Your task to perform on an android device: open app "Facebook Messenger" (install if not already installed) Image 0: 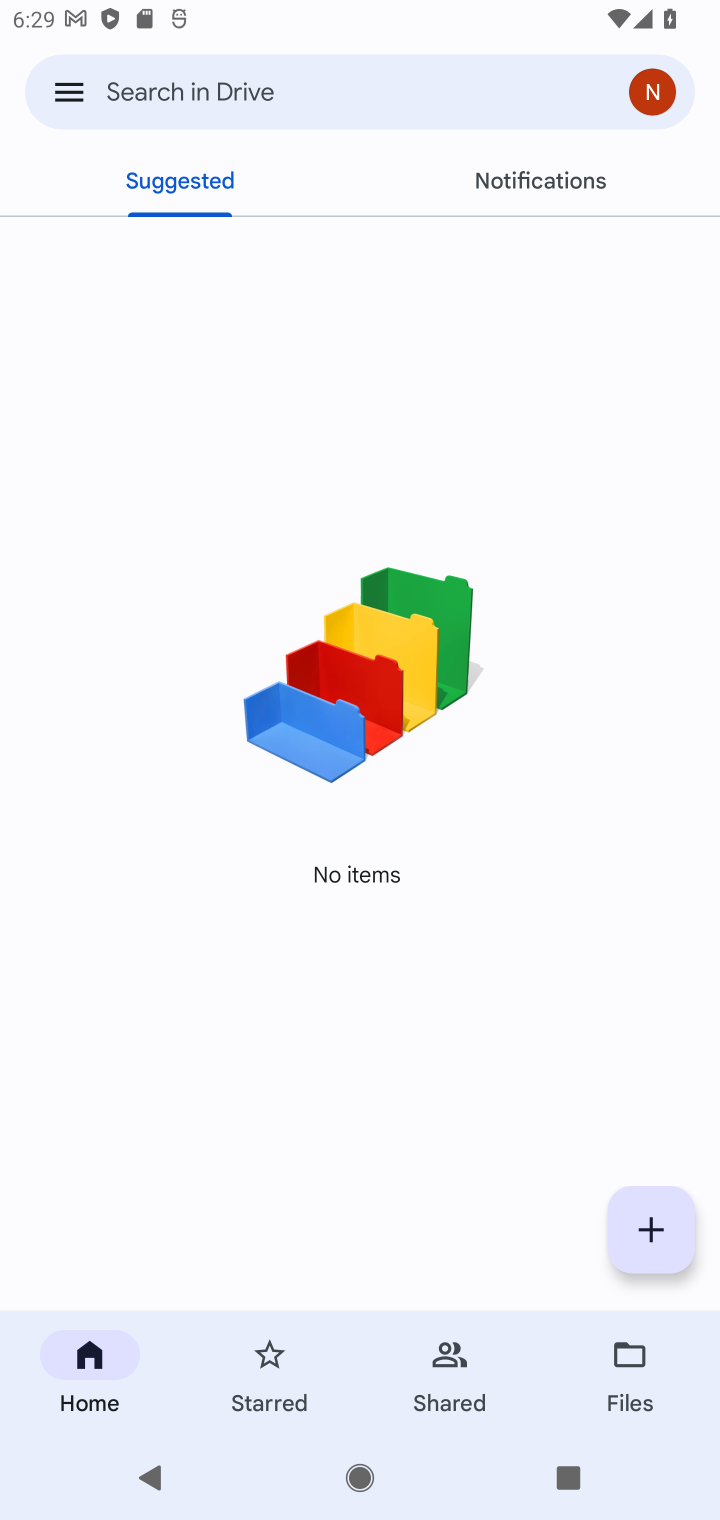
Step 0: press home button
Your task to perform on an android device: open app "Facebook Messenger" (install if not already installed) Image 1: 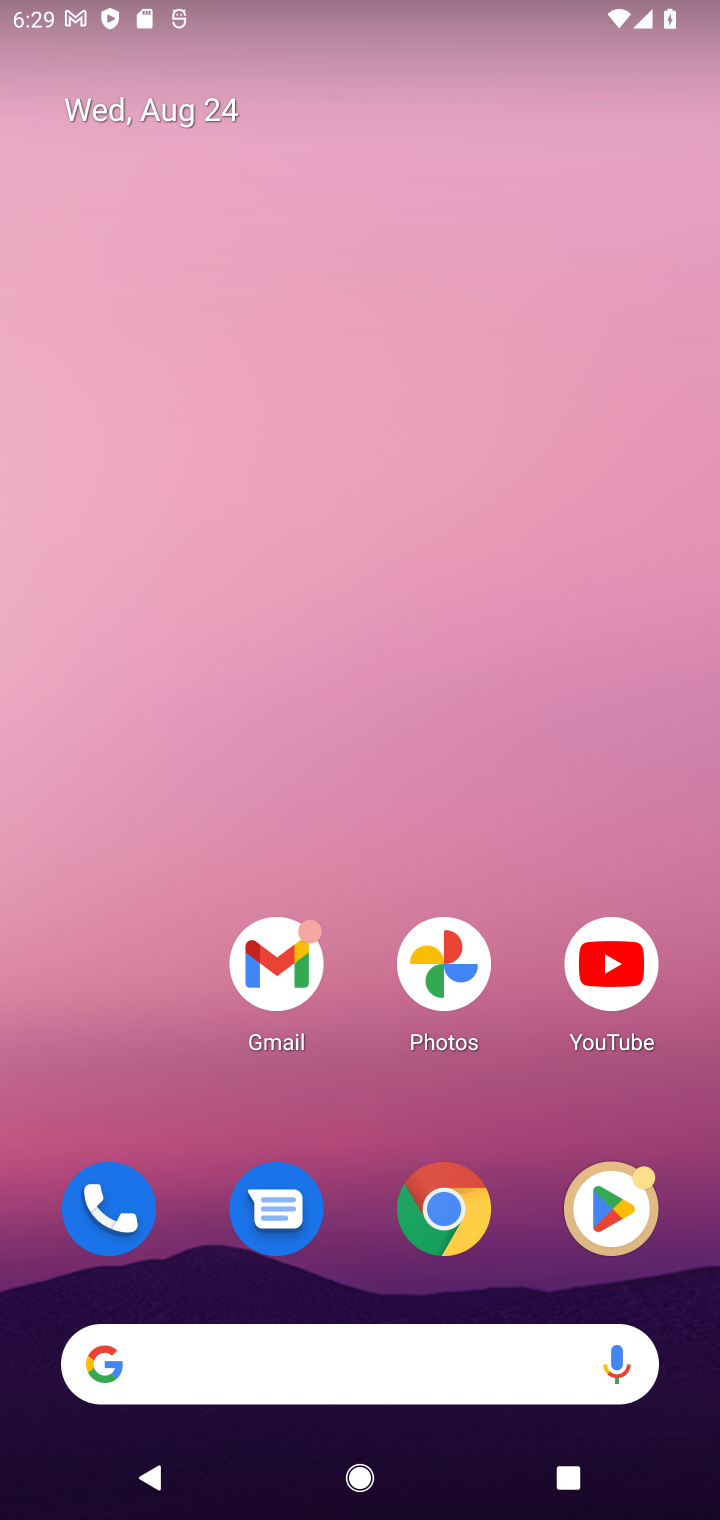
Step 1: drag from (255, 1254) to (608, 100)
Your task to perform on an android device: open app "Facebook Messenger" (install if not already installed) Image 2: 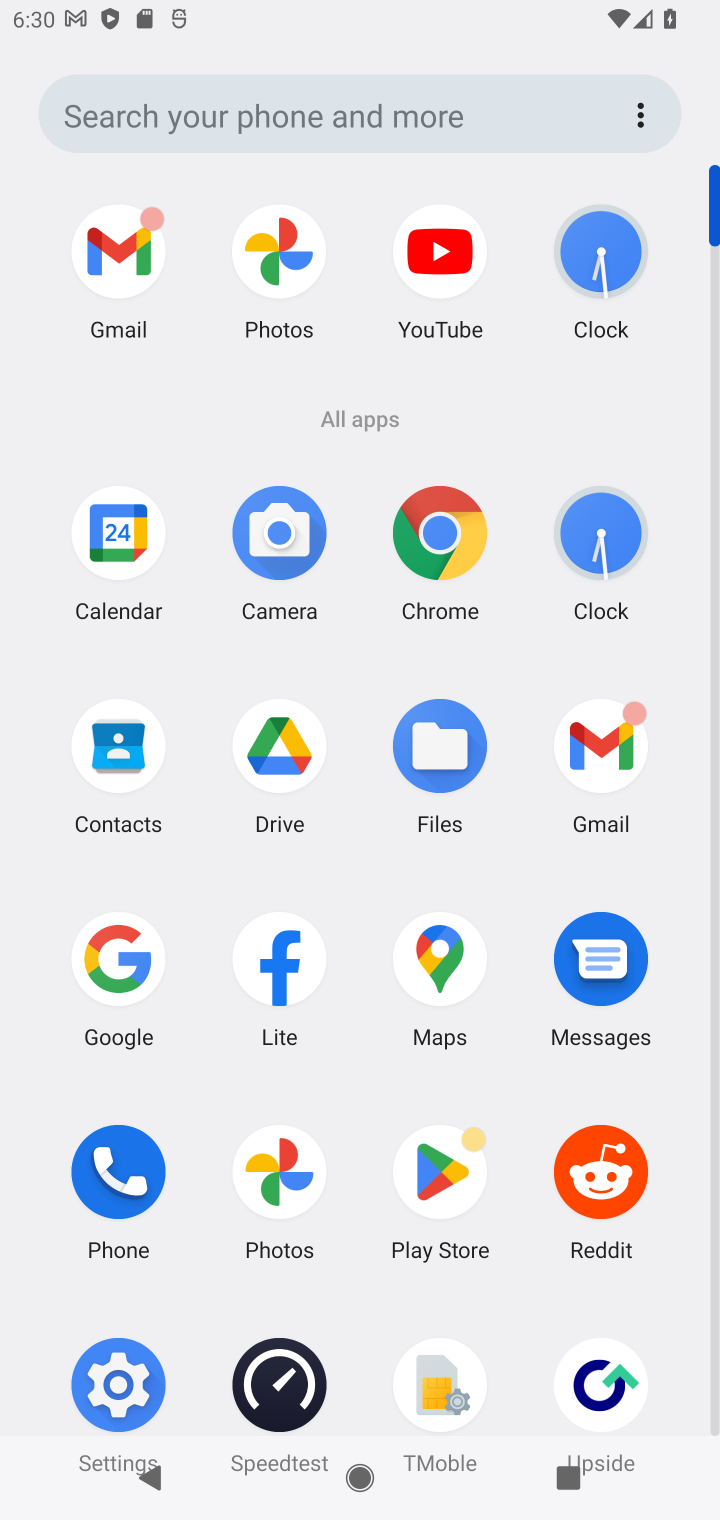
Step 2: drag from (318, 1246) to (341, 639)
Your task to perform on an android device: open app "Facebook Messenger" (install if not already installed) Image 3: 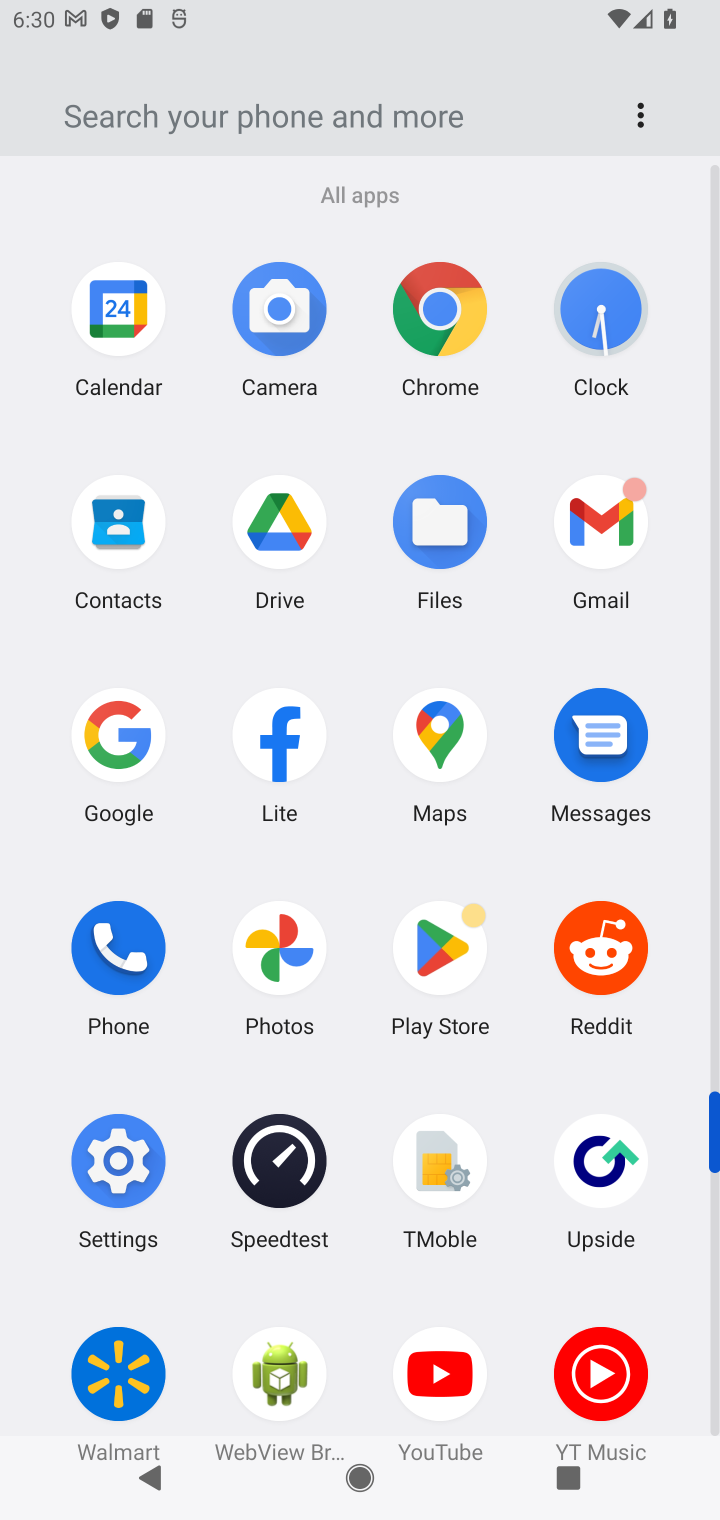
Step 3: click (456, 970)
Your task to perform on an android device: open app "Facebook Messenger" (install if not already installed) Image 4: 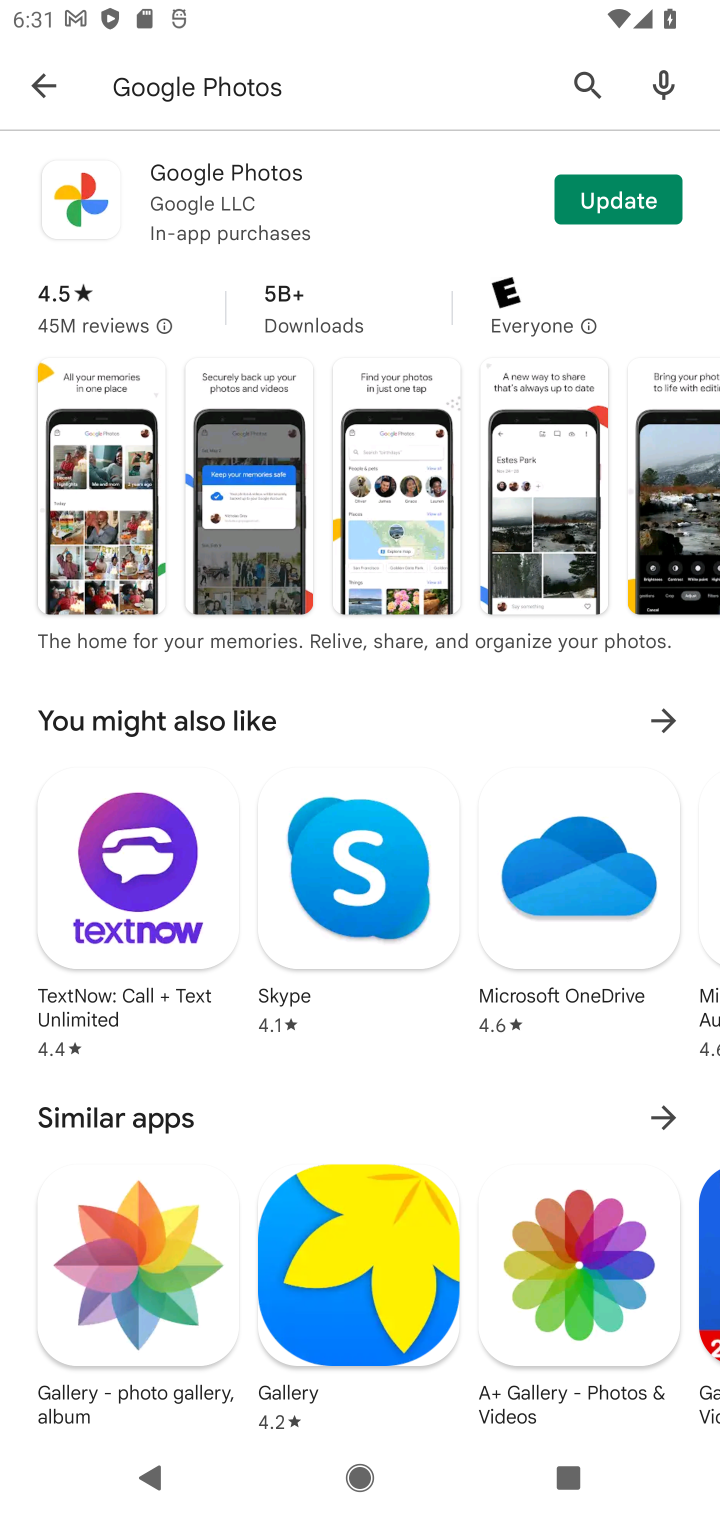
Step 4: drag from (414, 913) to (297, 309)
Your task to perform on an android device: open app "Facebook Messenger" (install if not already installed) Image 5: 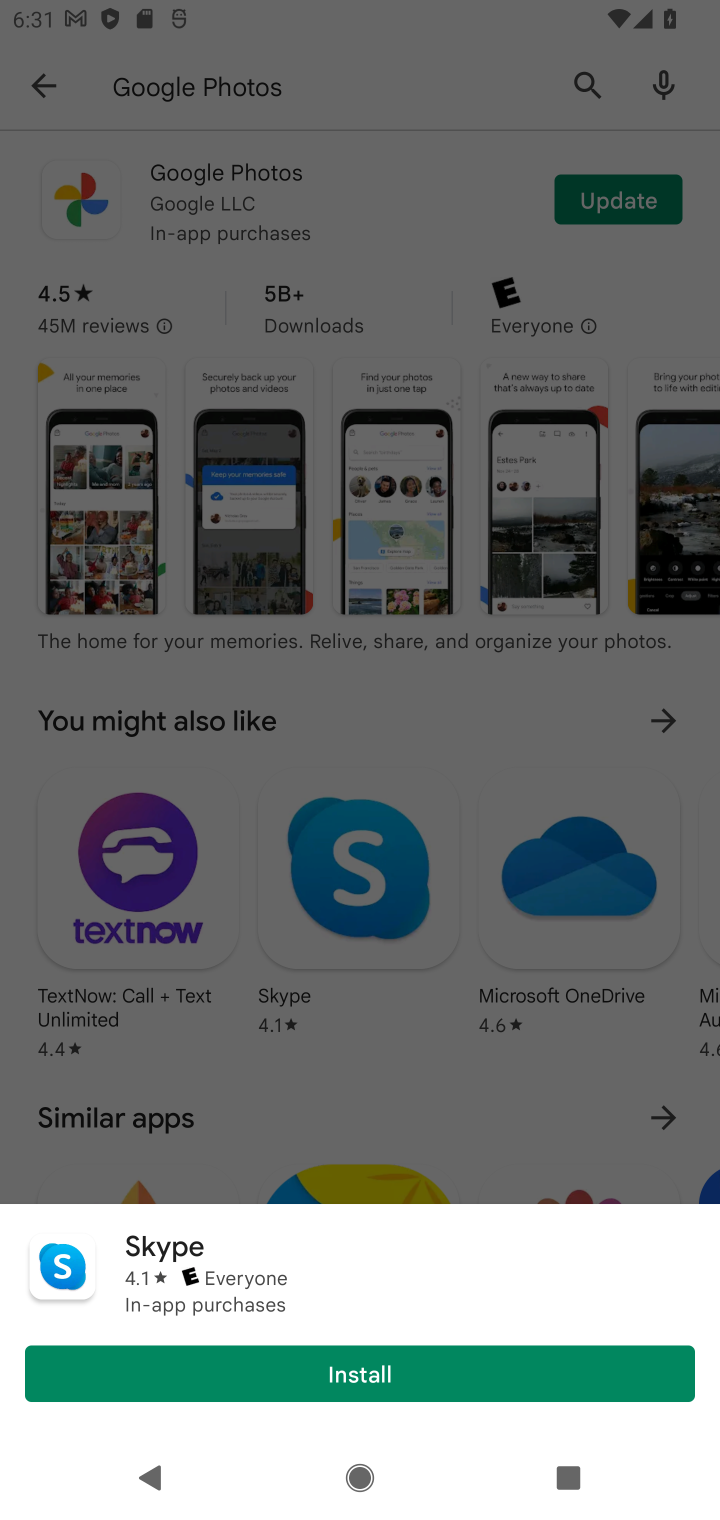
Step 5: press back button
Your task to perform on an android device: open app "Facebook Messenger" (install if not already installed) Image 6: 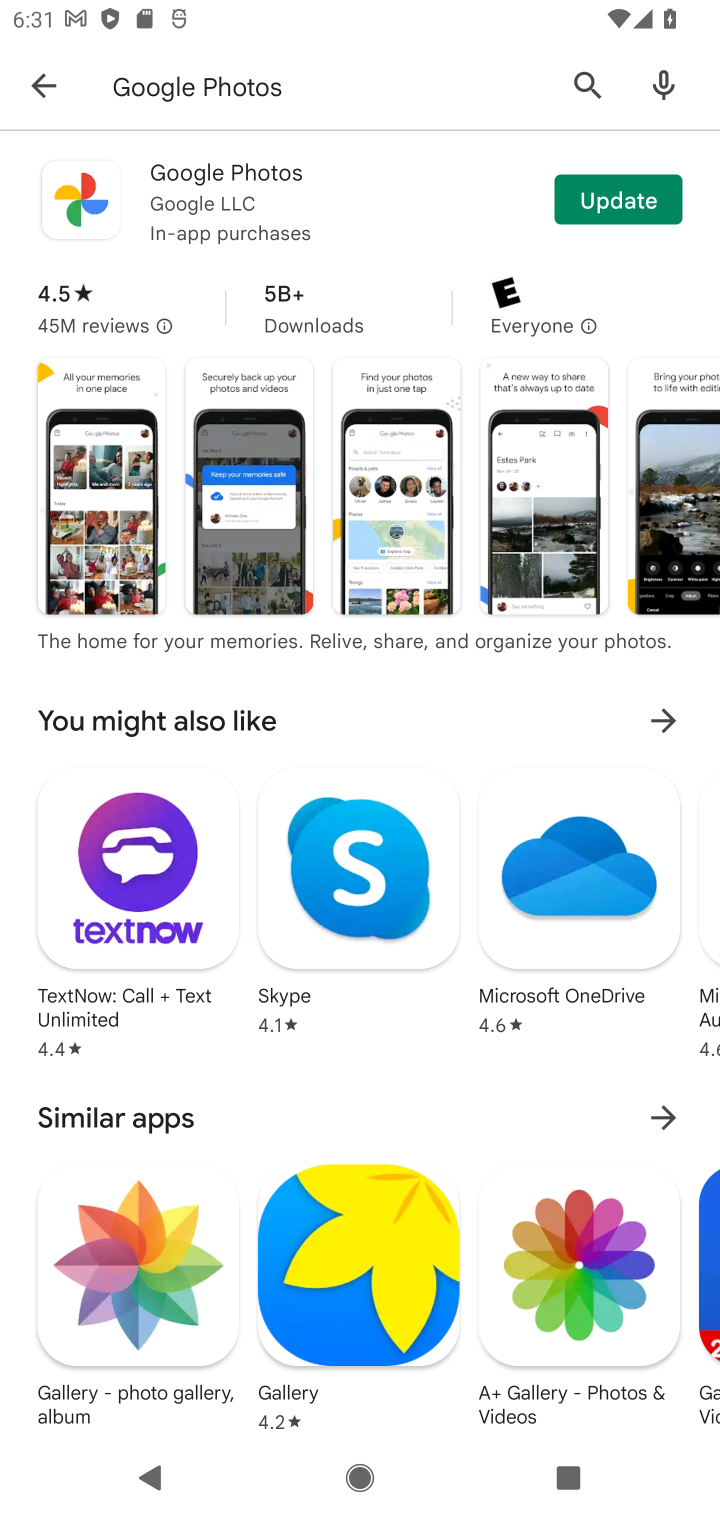
Step 6: press back button
Your task to perform on an android device: open app "Facebook Messenger" (install if not already installed) Image 7: 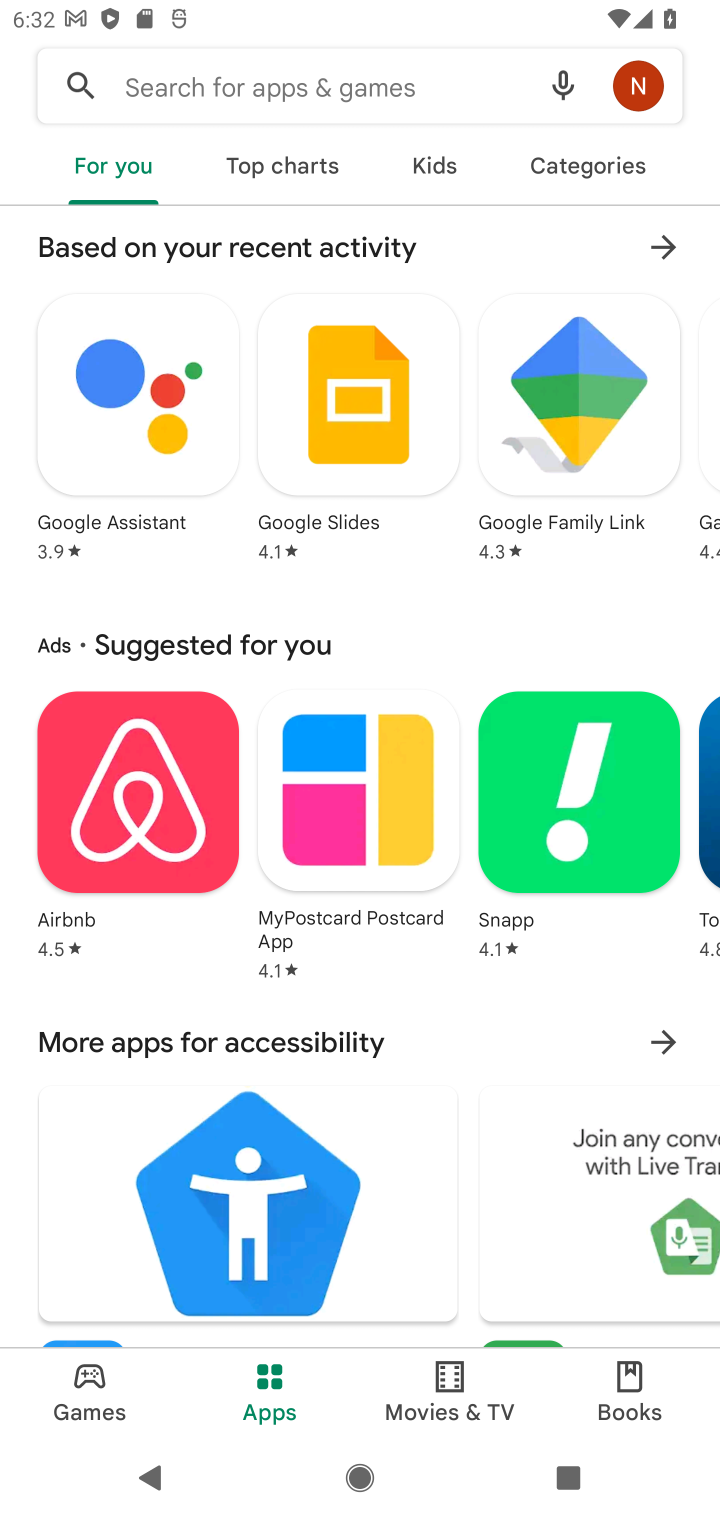
Step 7: click (277, 103)
Your task to perform on an android device: open app "Facebook Messenger" (install if not already installed) Image 8: 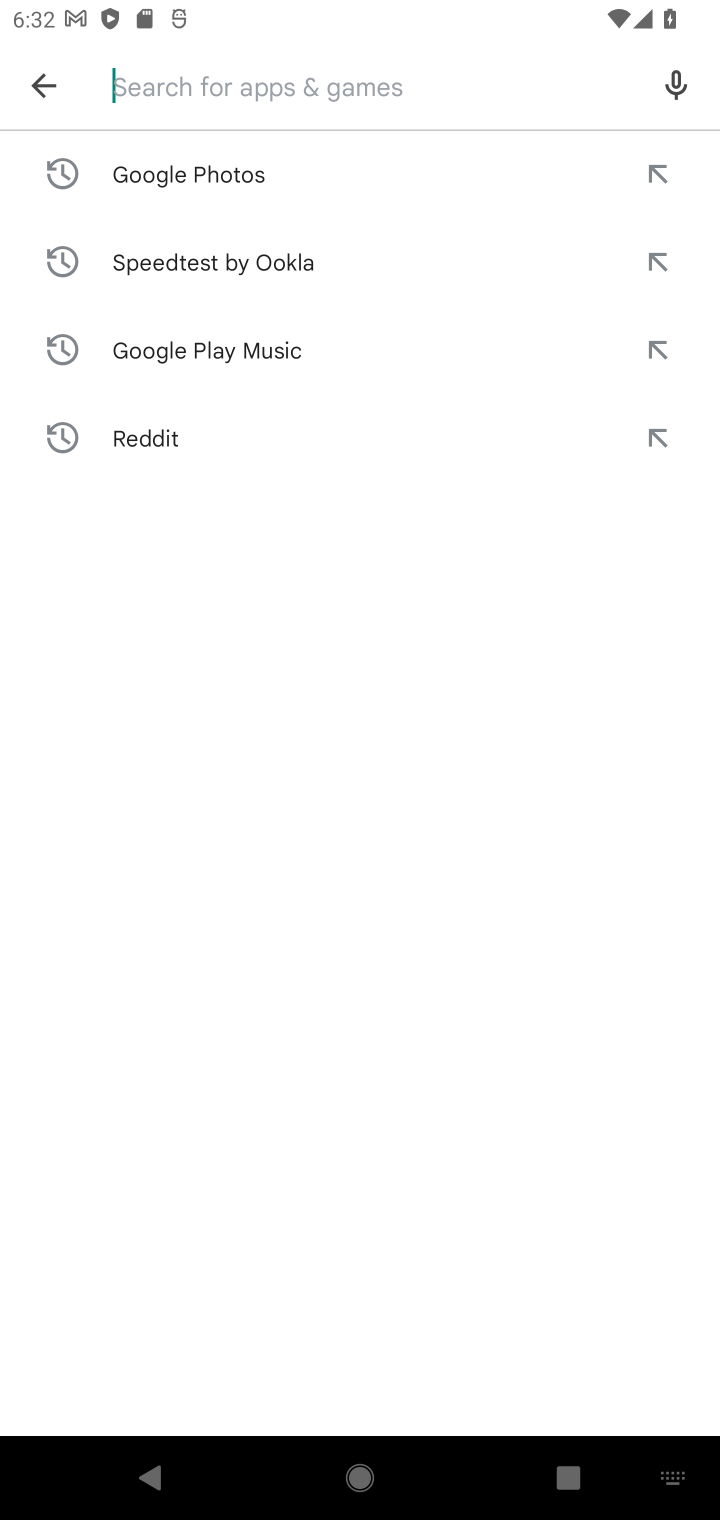
Step 8: press enter
Your task to perform on an android device: open app "Facebook Messenger" (install if not already installed) Image 9: 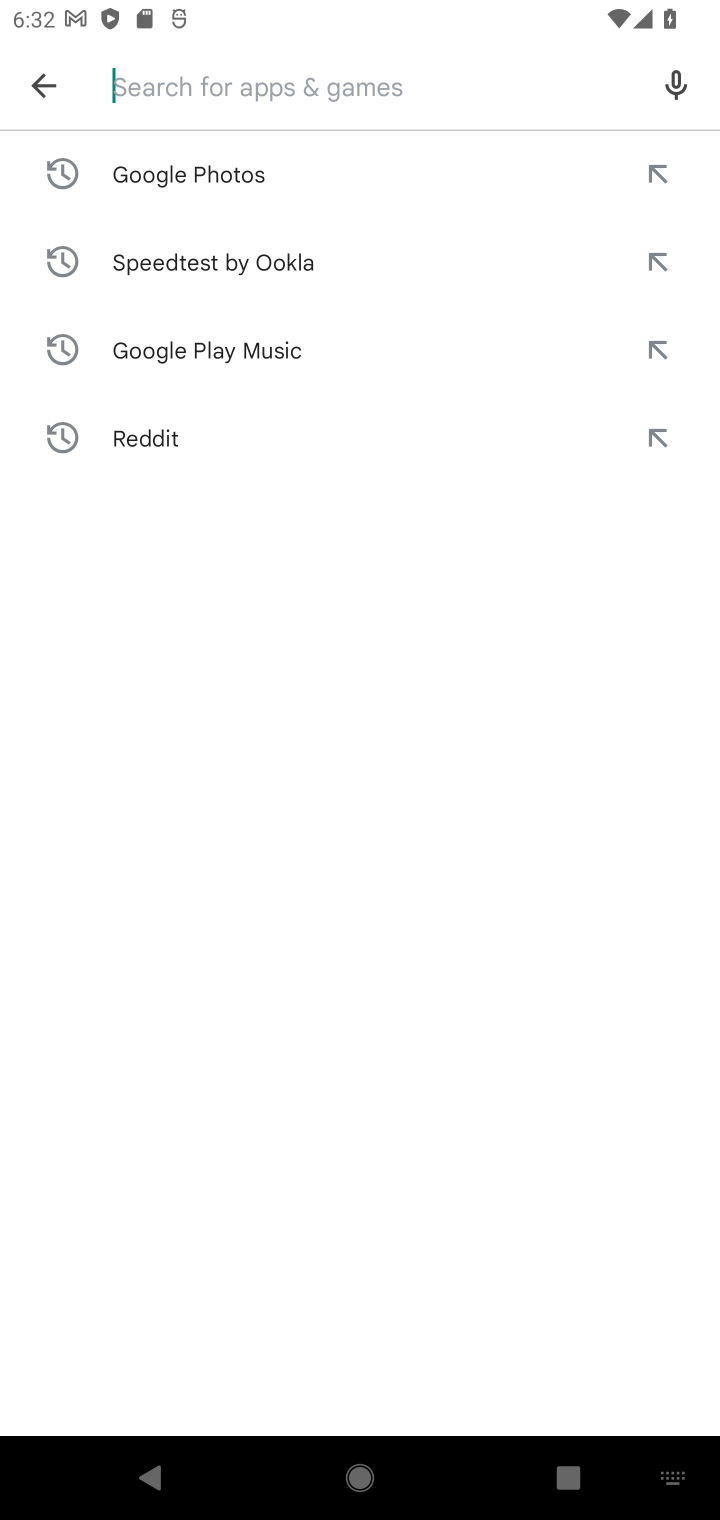
Step 9: type "Facebook Messenger"
Your task to perform on an android device: open app "Facebook Messenger" (install if not already installed) Image 10: 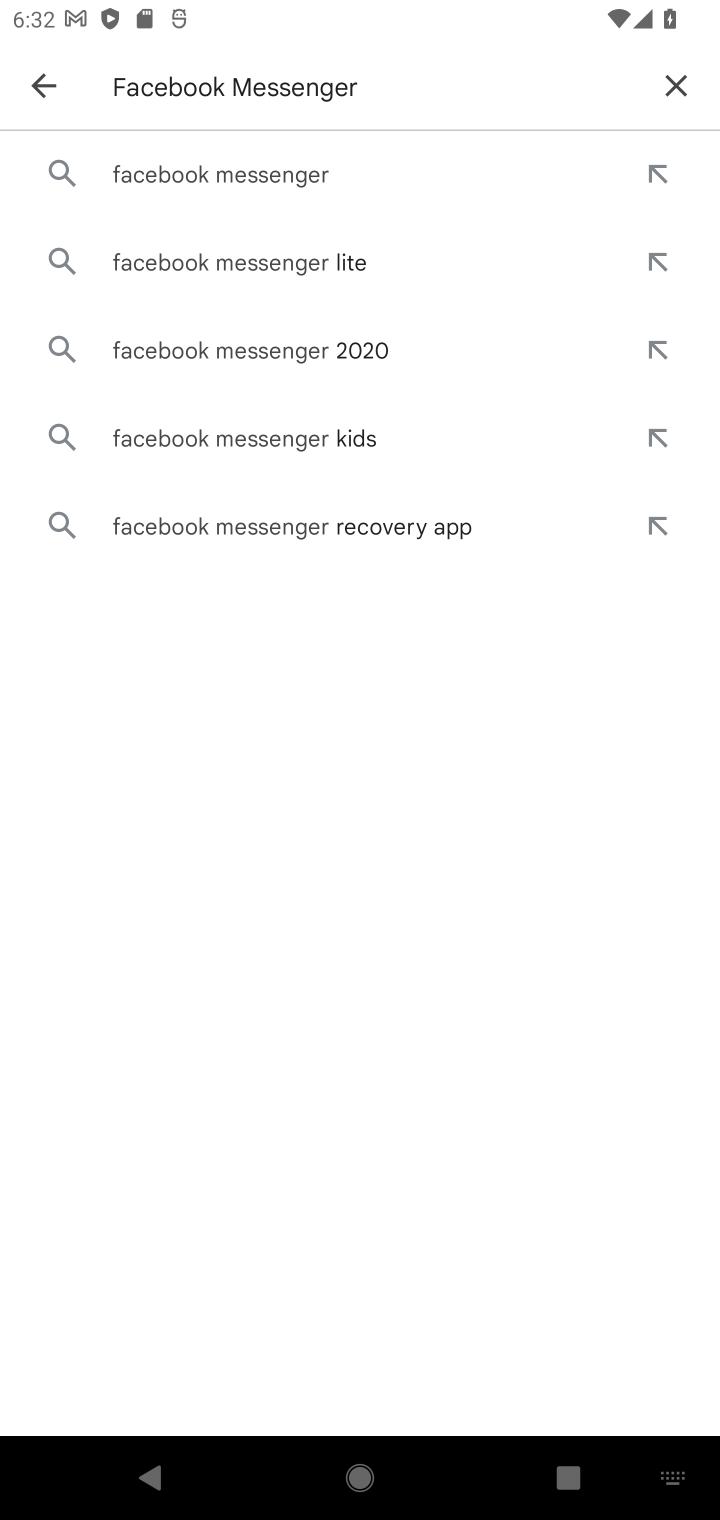
Step 10: press enter
Your task to perform on an android device: open app "Facebook Messenger" (install if not already installed) Image 11: 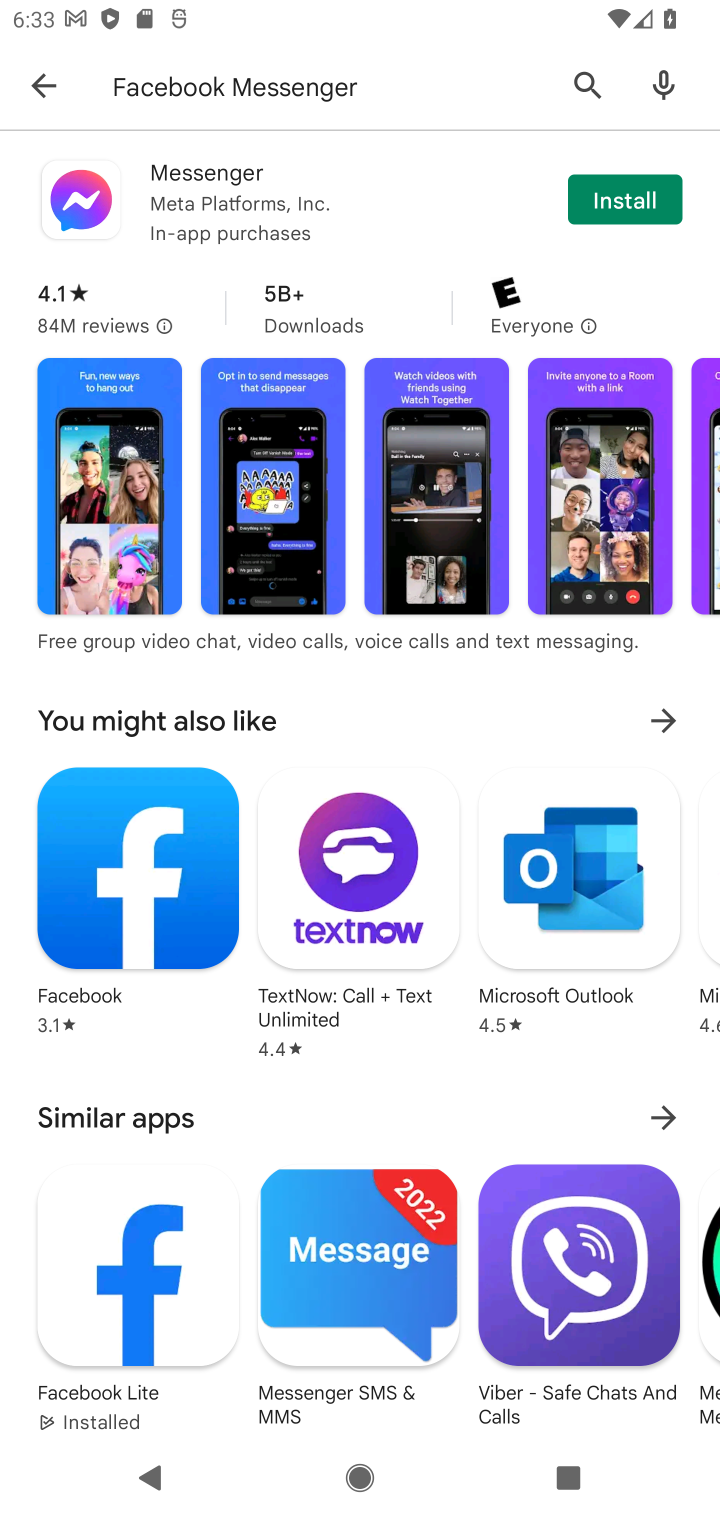
Step 11: click (625, 200)
Your task to perform on an android device: open app "Facebook Messenger" (install if not already installed) Image 12: 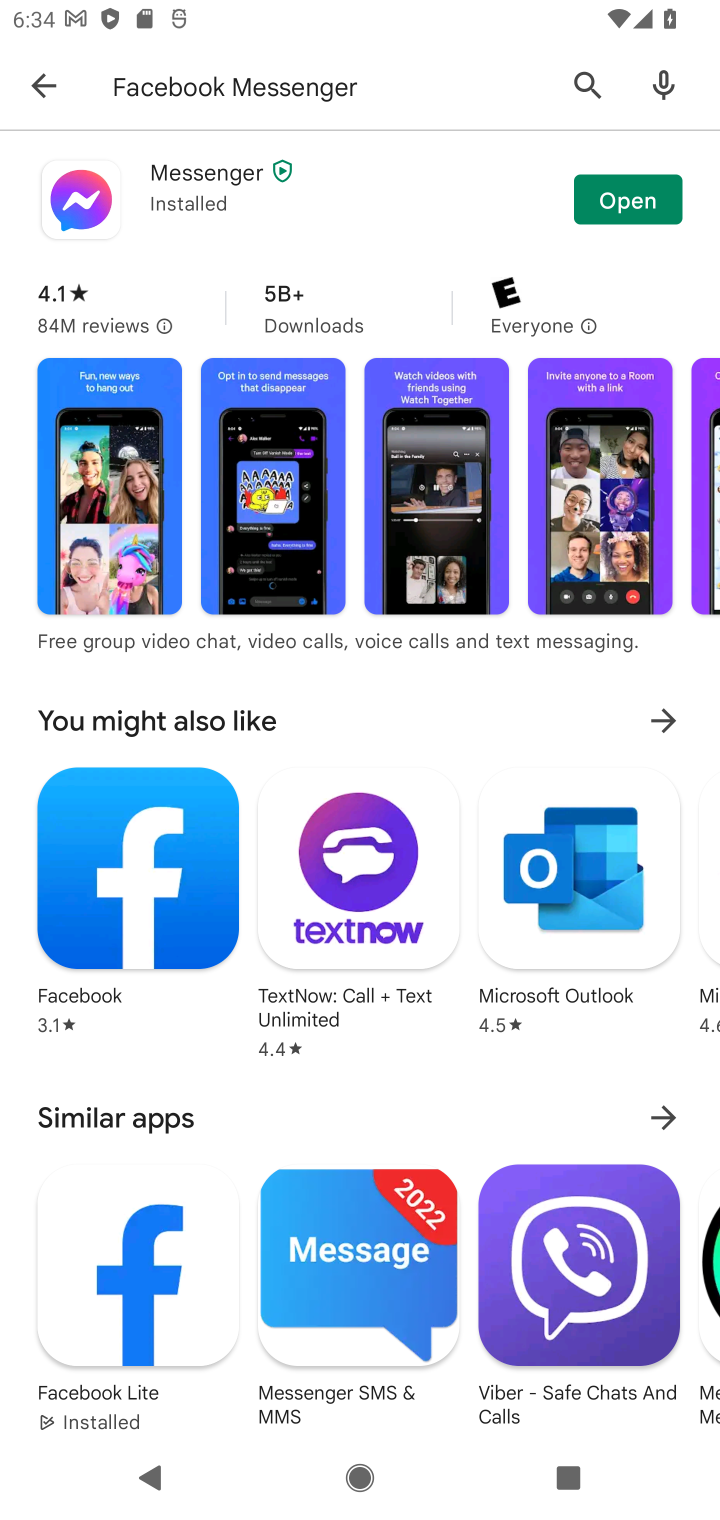
Step 12: click (635, 209)
Your task to perform on an android device: open app "Facebook Messenger" (install if not already installed) Image 13: 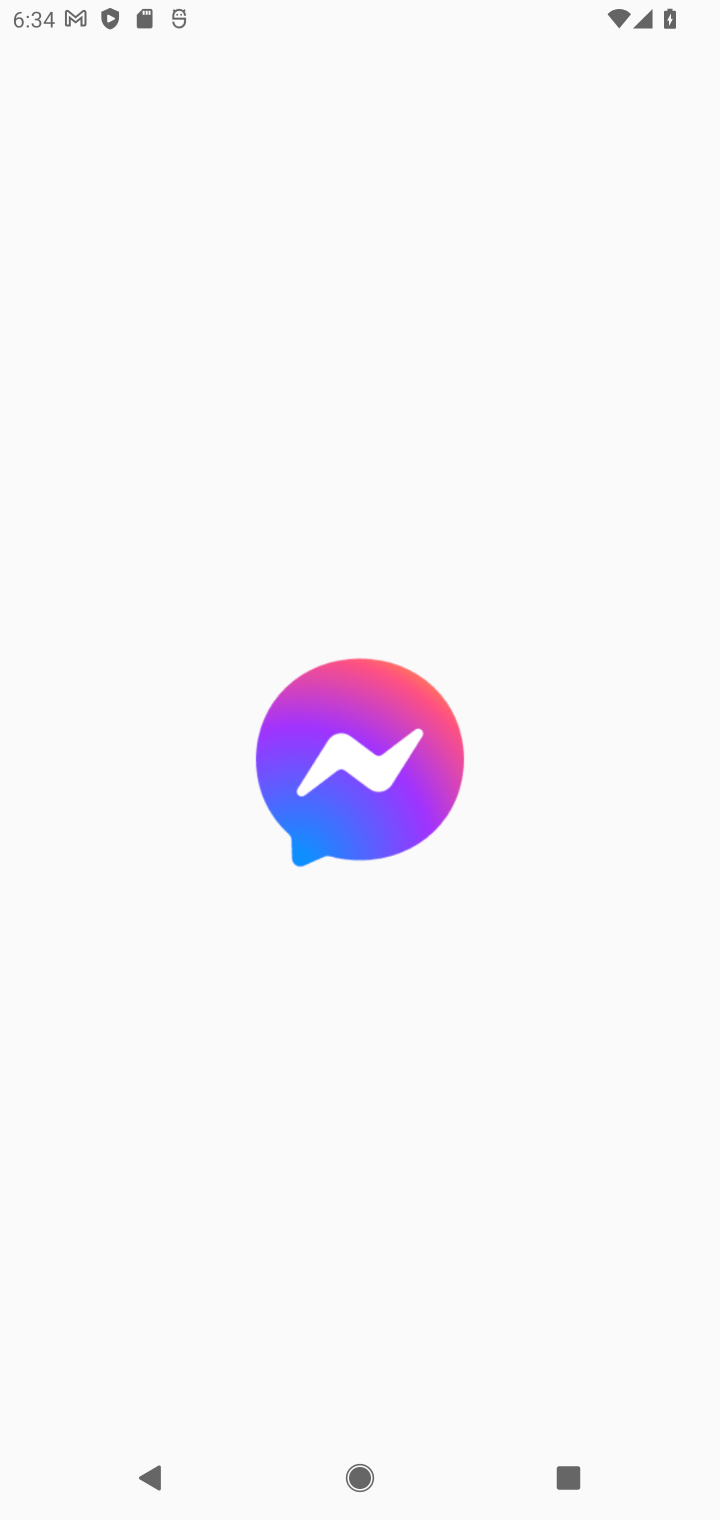
Step 13: task complete